Your task to perform on an android device: Open Chrome and go to the settings page Image 0: 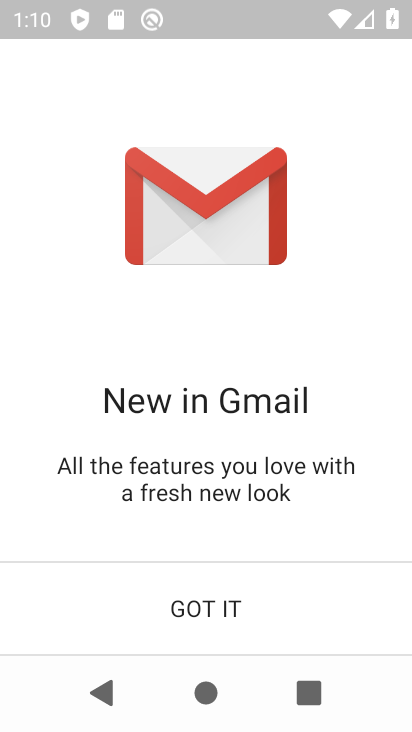
Step 0: press home button
Your task to perform on an android device: Open Chrome and go to the settings page Image 1: 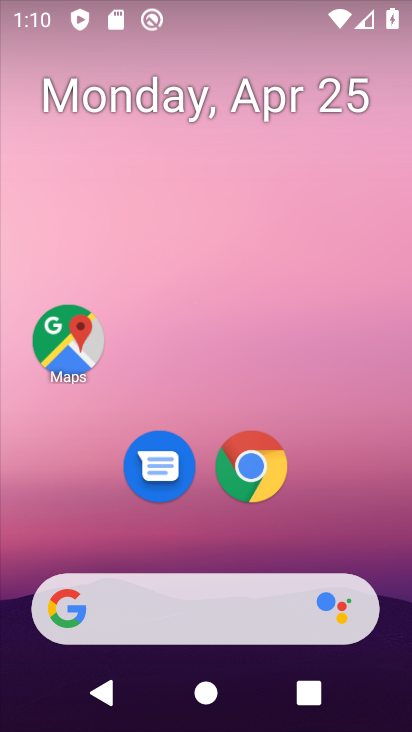
Step 1: click (262, 458)
Your task to perform on an android device: Open Chrome and go to the settings page Image 2: 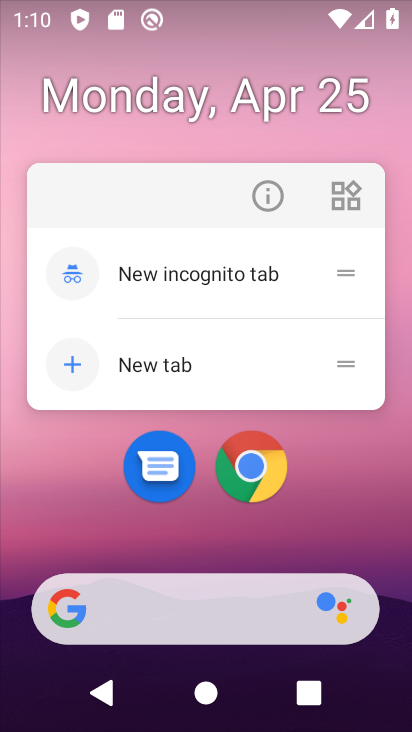
Step 2: click (244, 475)
Your task to perform on an android device: Open Chrome and go to the settings page Image 3: 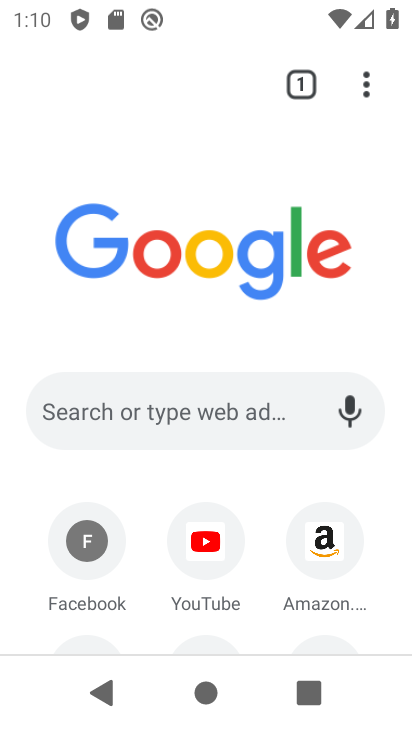
Step 3: click (355, 86)
Your task to perform on an android device: Open Chrome and go to the settings page Image 4: 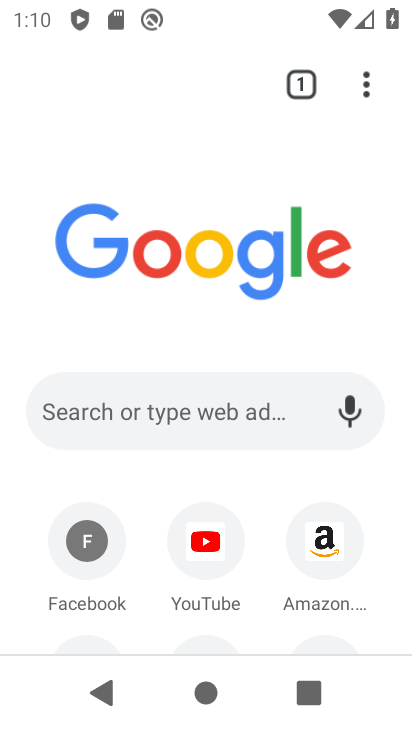
Step 4: click (373, 86)
Your task to perform on an android device: Open Chrome and go to the settings page Image 5: 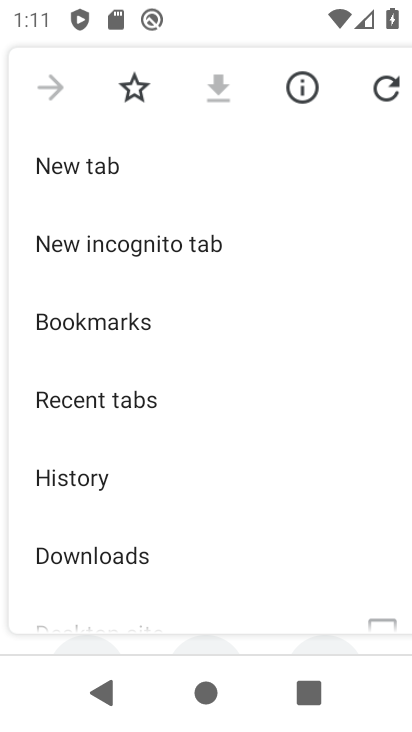
Step 5: drag from (189, 561) to (248, 198)
Your task to perform on an android device: Open Chrome and go to the settings page Image 6: 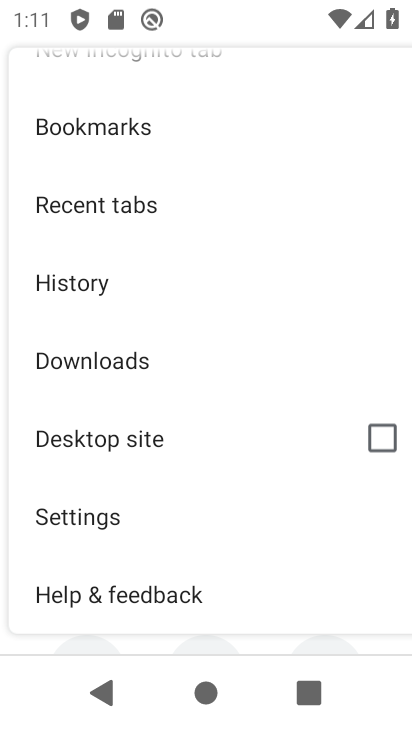
Step 6: click (189, 524)
Your task to perform on an android device: Open Chrome and go to the settings page Image 7: 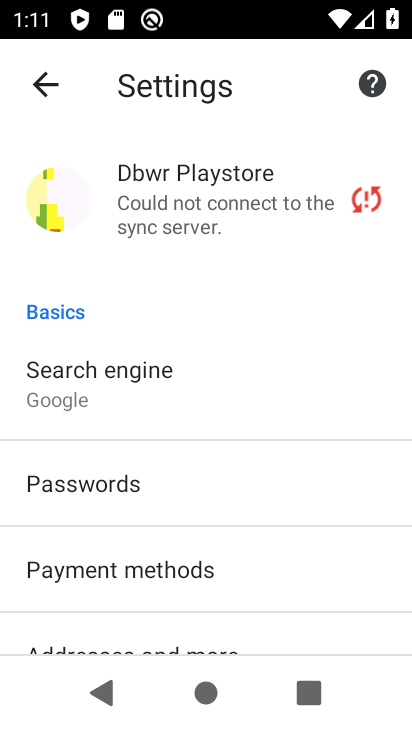
Step 7: task complete